Your task to perform on an android device: Turn off the flashlight Image 0: 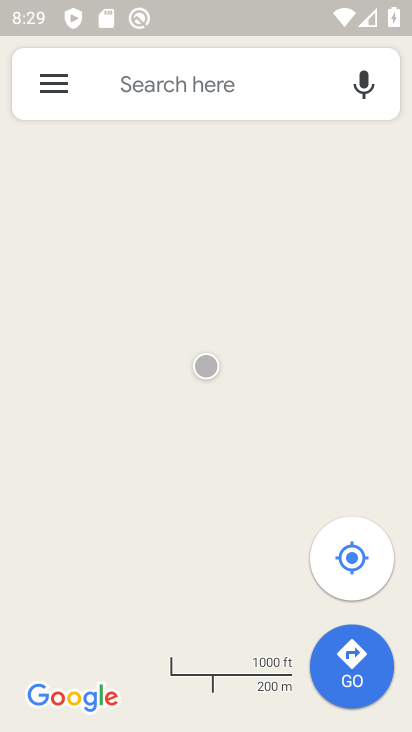
Step 0: press home button
Your task to perform on an android device: Turn off the flashlight Image 1: 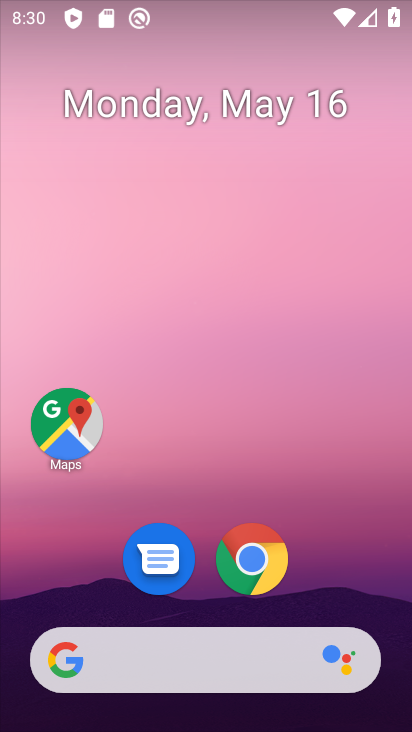
Step 1: drag from (338, 597) to (326, 136)
Your task to perform on an android device: Turn off the flashlight Image 2: 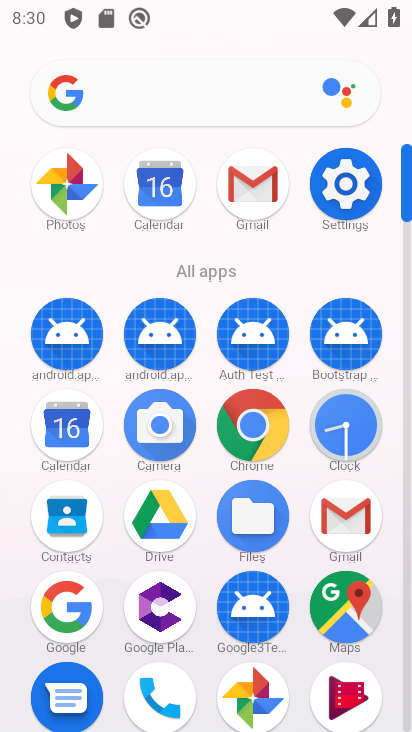
Step 2: click (360, 169)
Your task to perform on an android device: Turn off the flashlight Image 3: 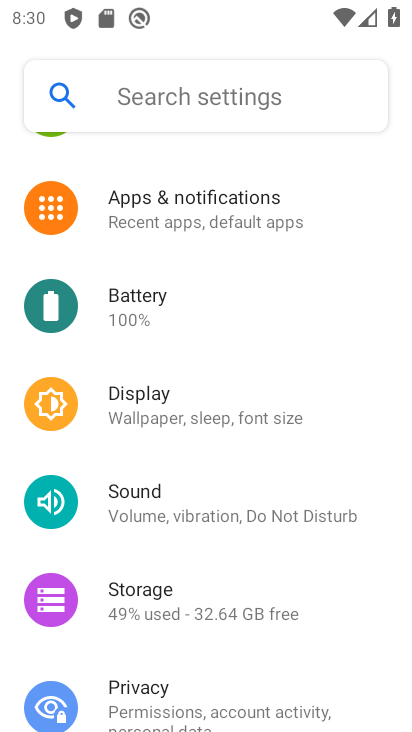
Step 3: task complete